Your task to perform on an android device: Go to CNN.com Image 0: 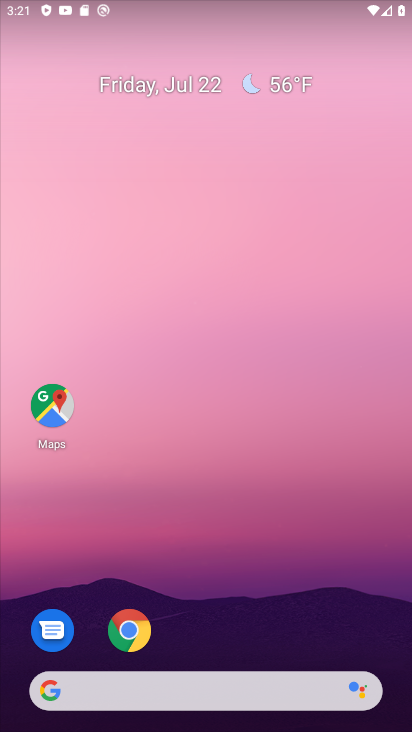
Step 0: drag from (221, 618) to (172, 63)
Your task to perform on an android device: Go to CNN.com Image 1: 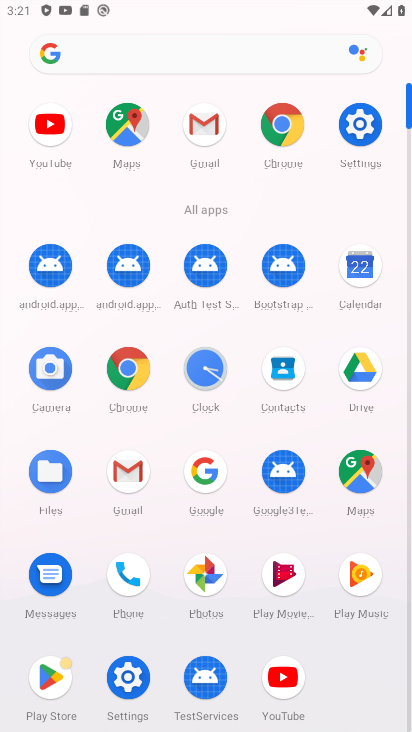
Step 1: click (295, 128)
Your task to perform on an android device: Go to CNN.com Image 2: 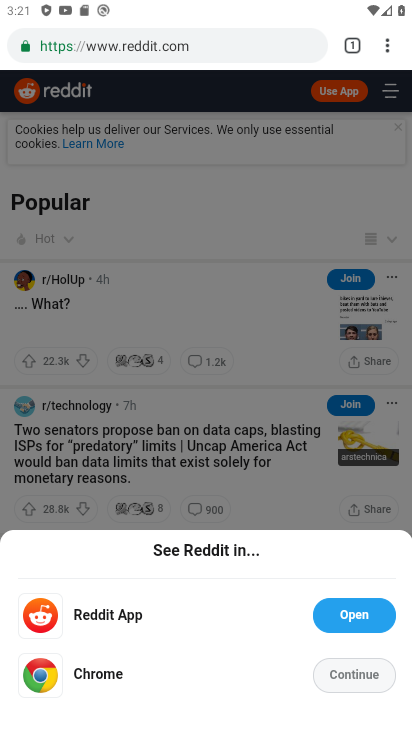
Step 2: click (211, 51)
Your task to perform on an android device: Go to CNN.com Image 3: 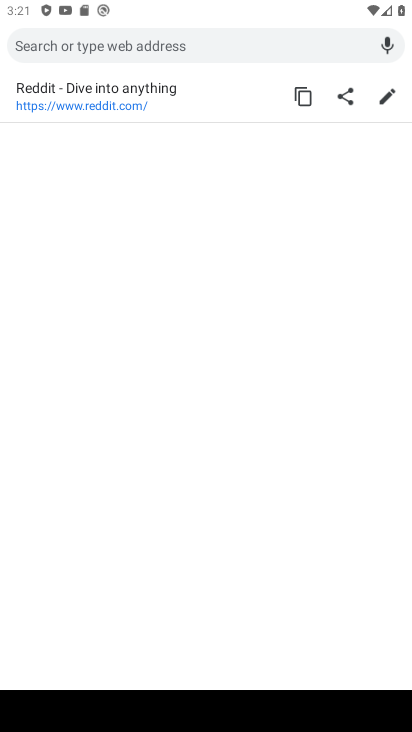
Step 3: type "cnn.cpm"
Your task to perform on an android device: Go to CNN.com Image 4: 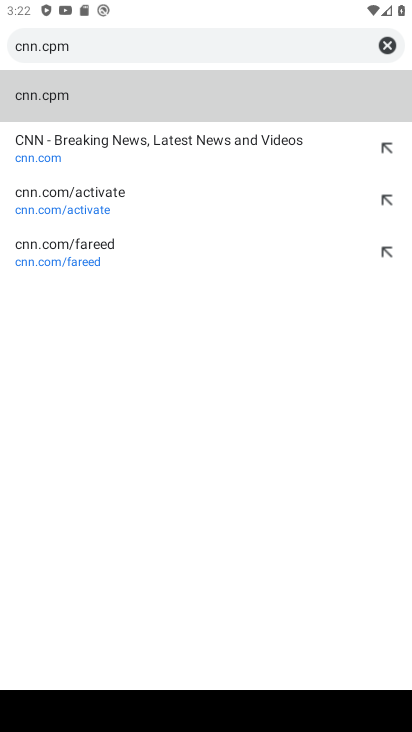
Step 4: click (157, 129)
Your task to perform on an android device: Go to CNN.com Image 5: 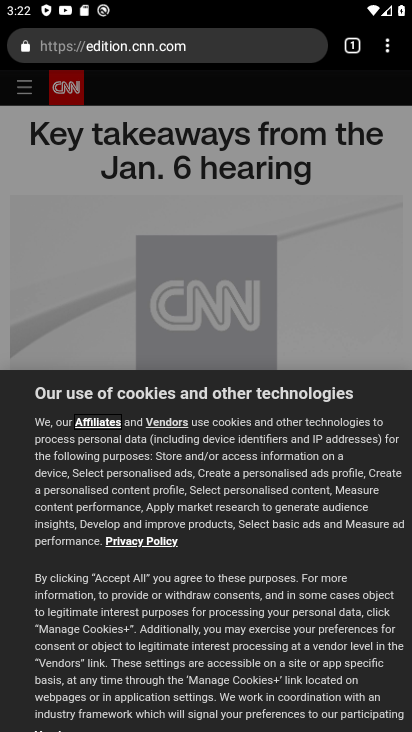
Step 5: task complete